Your task to perform on an android device: Toggle the flashlight Image 0: 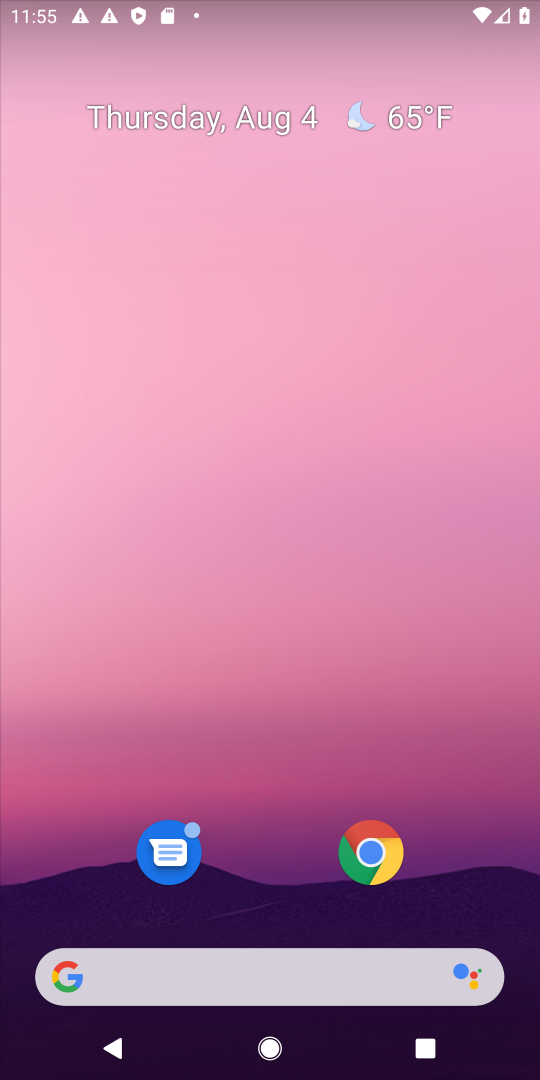
Step 0: drag from (476, 744) to (424, 296)
Your task to perform on an android device: Toggle the flashlight Image 1: 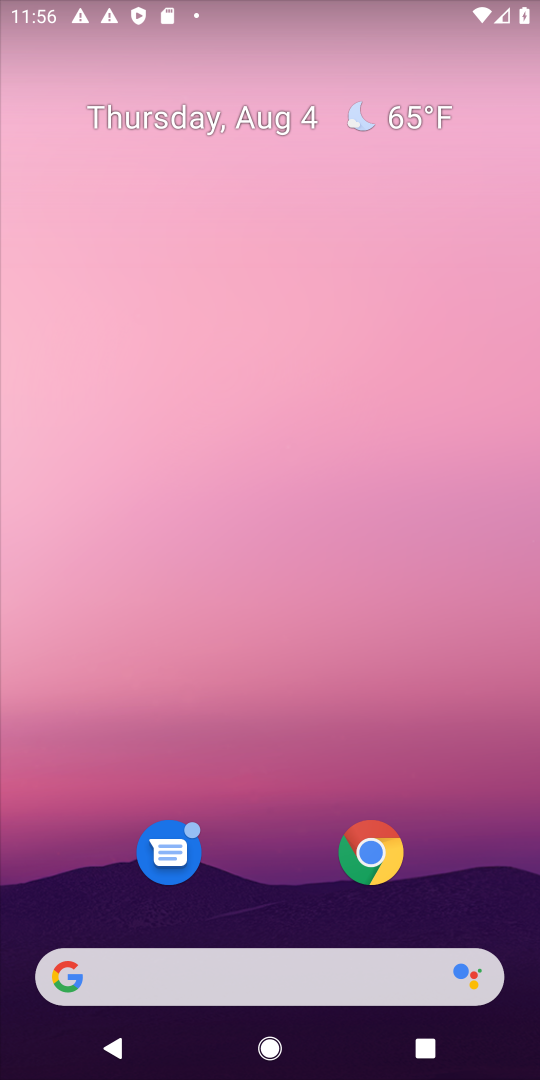
Step 1: drag from (517, 1056) to (431, 297)
Your task to perform on an android device: Toggle the flashlight Image 2: 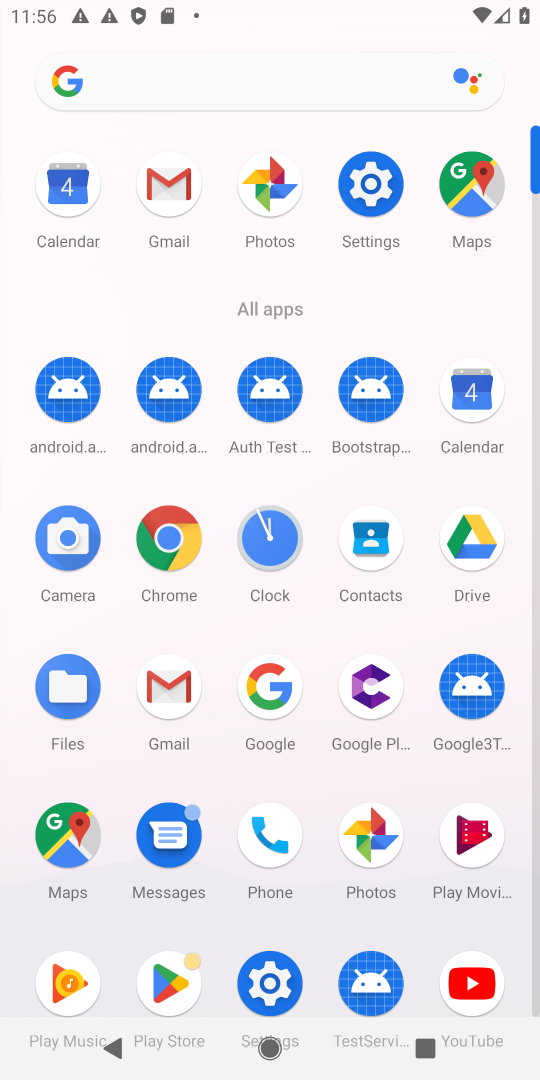
Step 2: click (387, 189)
Your task to perform on an android device: Toggle the flashlight Image 3: 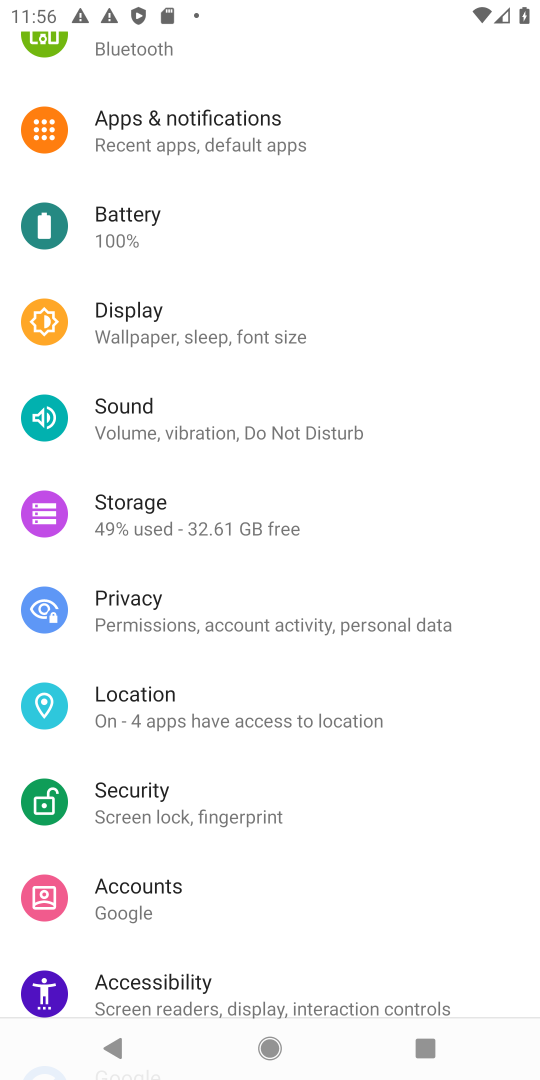
Step 3: click (92, 318)
Your task to perform on an android device: Toggle the flashlight Image 4: 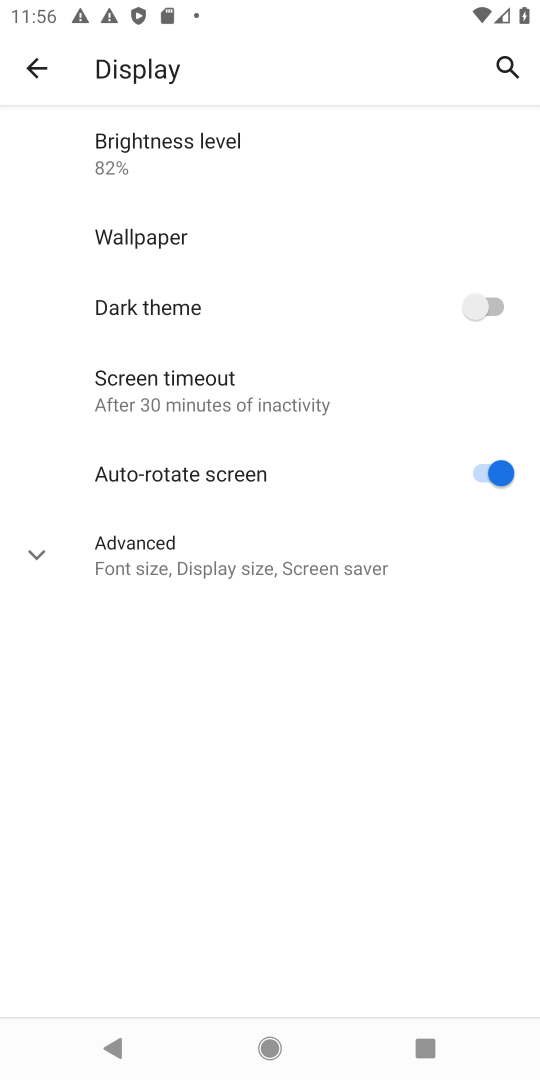
Step 4: drag from (363, 367) to (448, 701)
Your task to perform on an android device: Toggle the flashlight Image 5: 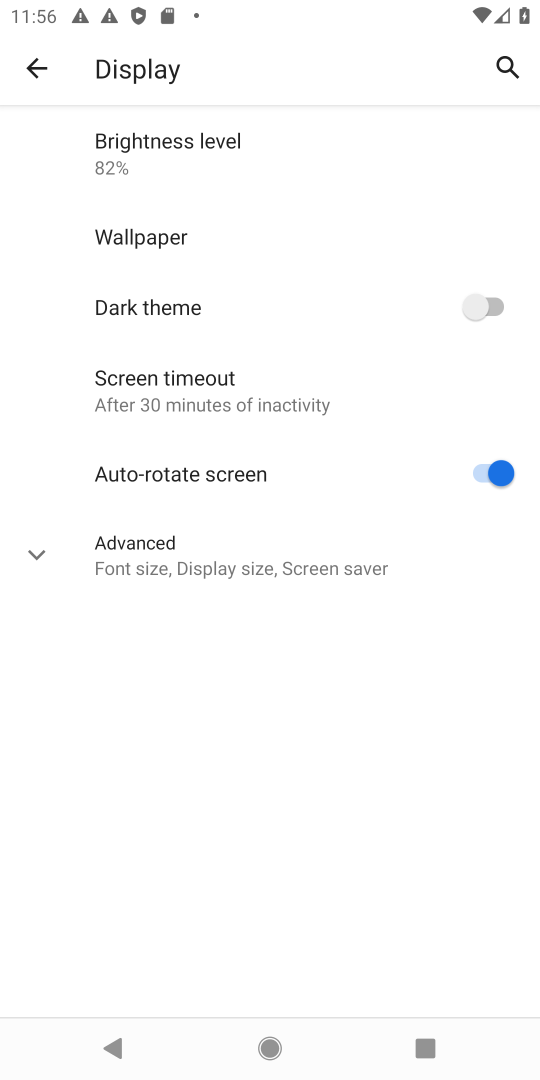
Step 5: click (43, 553)
Your task to perform on an android device: Toggle the flashlight Image 6: 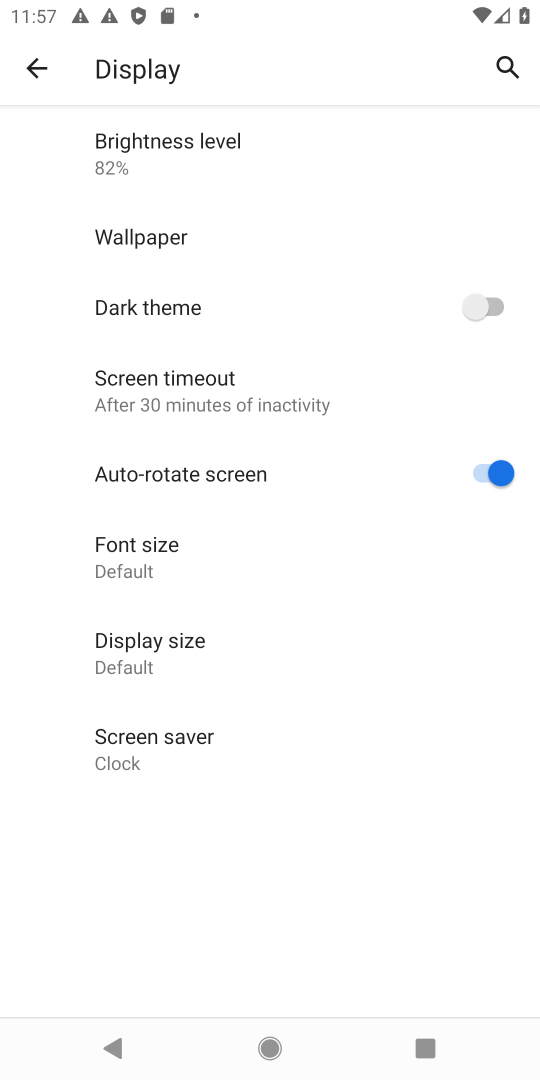
Step 6: task complete